Your task to perform on an android device: turn notification dots off Image 0: 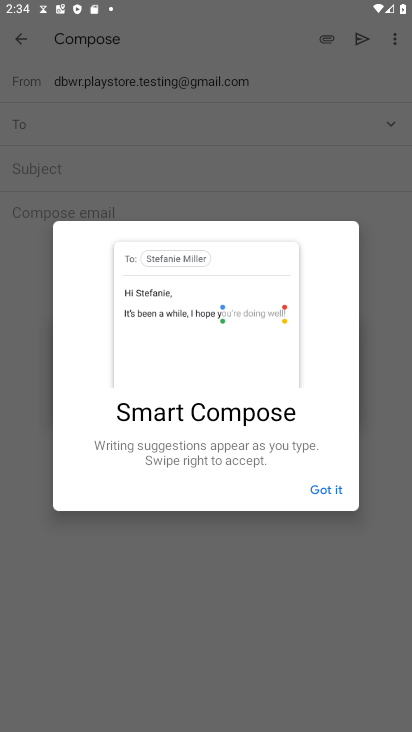
Step 0: press home button
Your task to perform on an android device: turn notification dots off Image 1: 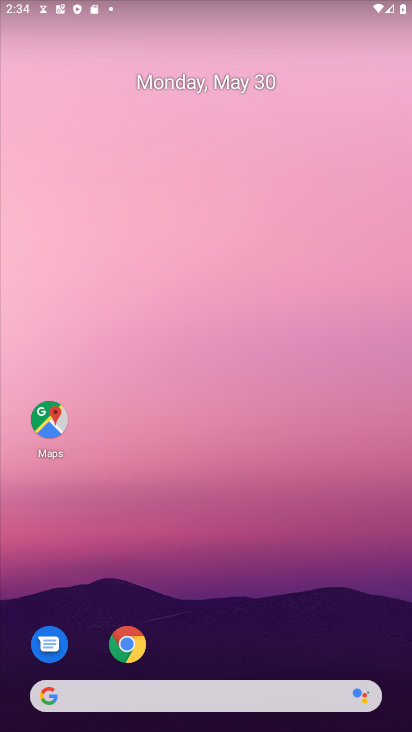
Step 1: drag from (292, 656) to (238, 124)
Your task to perform on an android device: turn notification dots off Image 2: 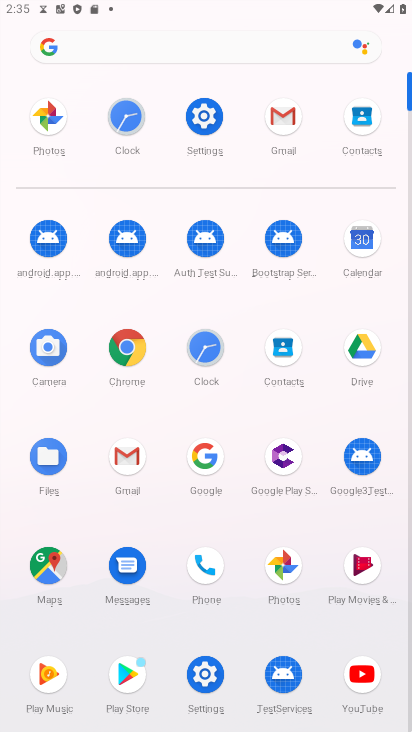
Step 2: click (198, 113)
Your task to perform on an android device: turn notification dots off Image 3: 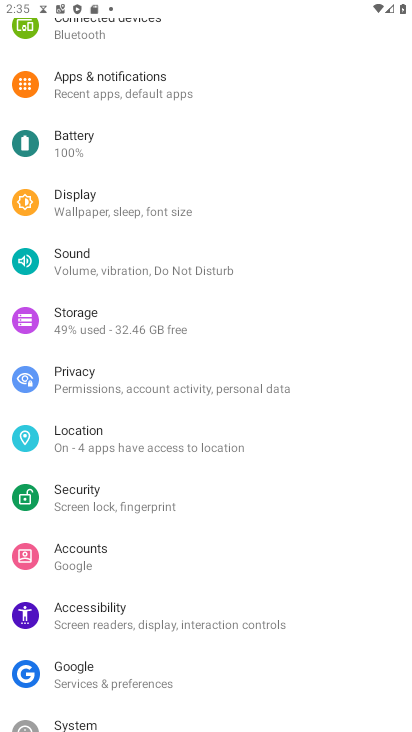
Step 3: click (163, 90)
Your task to perform on an android device: turn notification dots off Image 4: 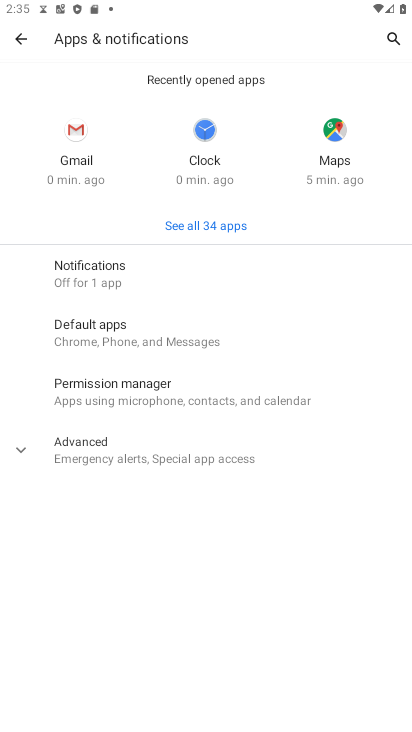
Step 4: click (102, 270)
Your task to perform on an android device: turn notification dots off Image 5: 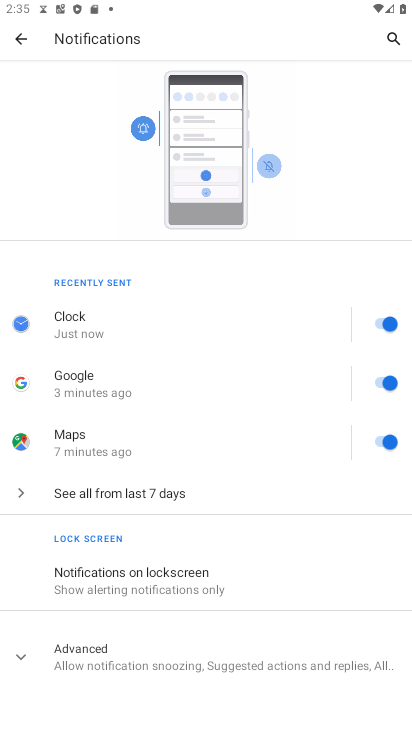
Step 5: click (17, 659)
Your task to perform on an android device: turn notification dots off Image 6: 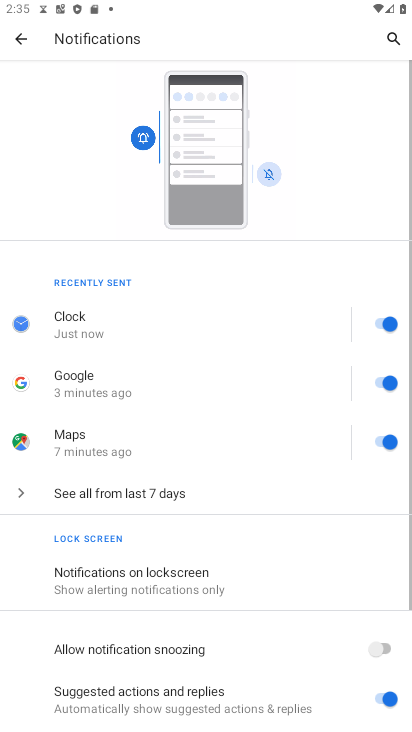
Step 6: drag from (293, 653) to (287, 412)
Your task to perform on an android device: turn notification dots off Image 7: 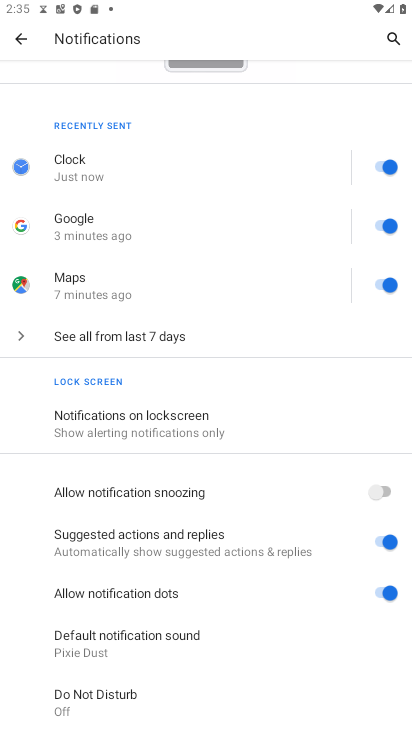
Step 7: click (387, 594)
Your task to perform on an android device: turn notification dots off Image 8: 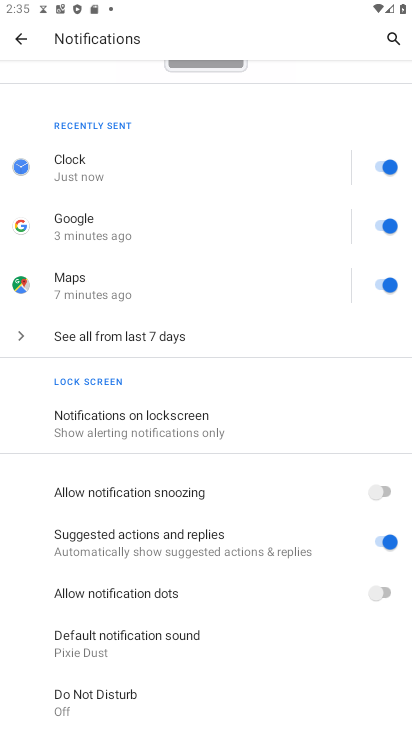
Step 8: task complete